Your task to perform on an android device: toggle airplane mode Image 0: 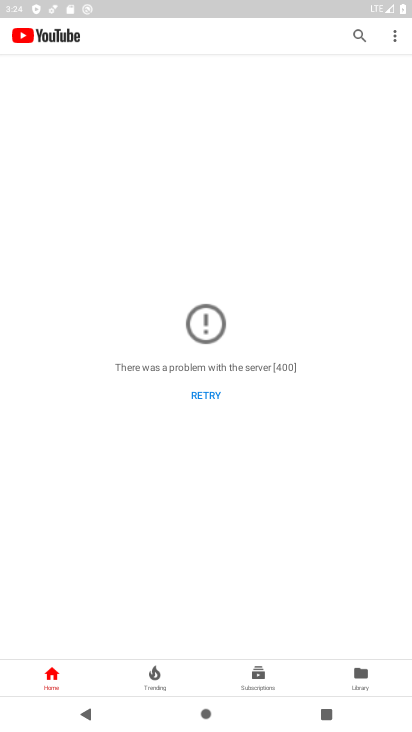
Step 0: press back button
Your task to perform on an android device: toggle airplane mode Image 1: 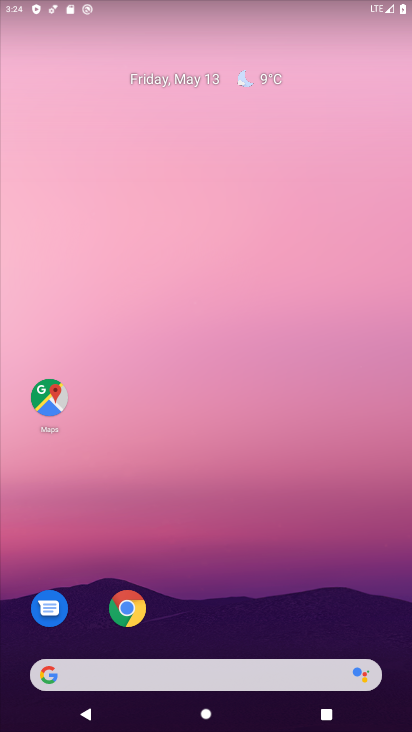
Step 1: drag from (110, 657) to (336, 151)
Your task to perform on an android device: toggle airplane mode Image 2: 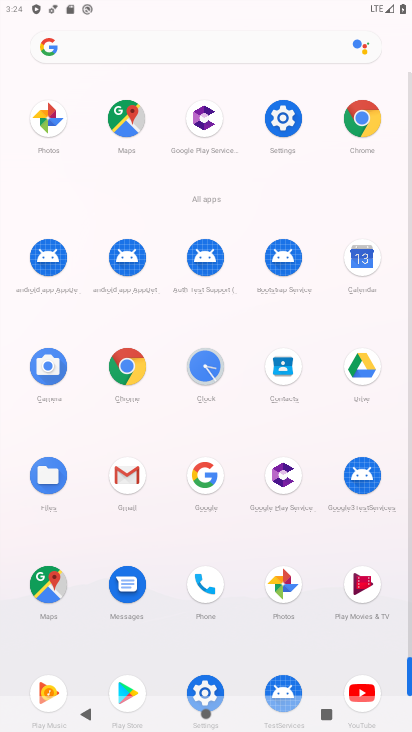
Step 2: drag from (193, 581) to (243, 399)
Your task to perform on an android device: toggle airplane mode Image 3: 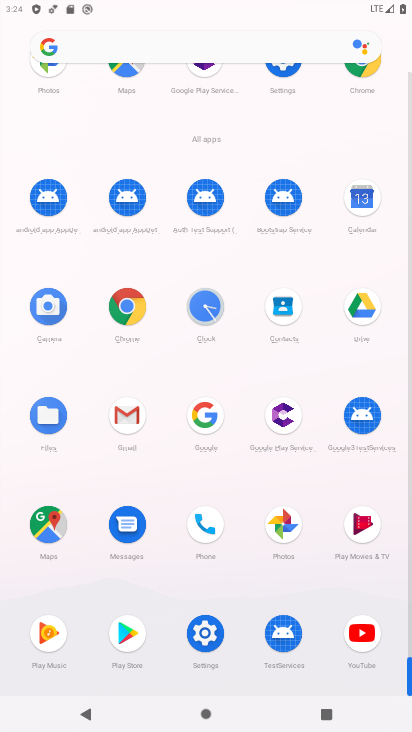
Step 3: click (215, 637)
Your task to perform on an android device: toggle airplane mode Image 4: 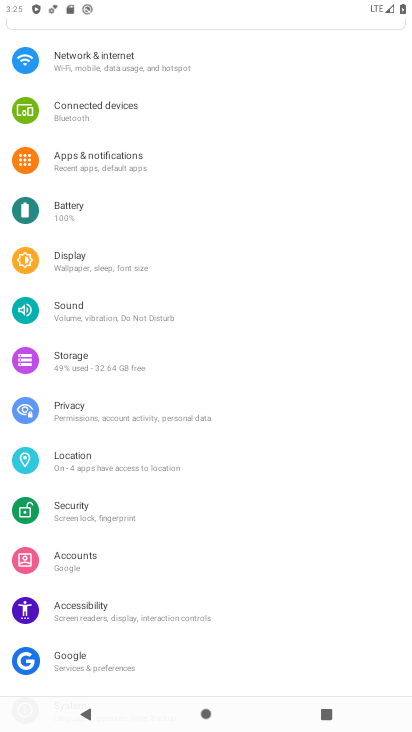
Step 4: click (265, 64)
Your task to perform on an android device: toggle airplane mode Image 5: 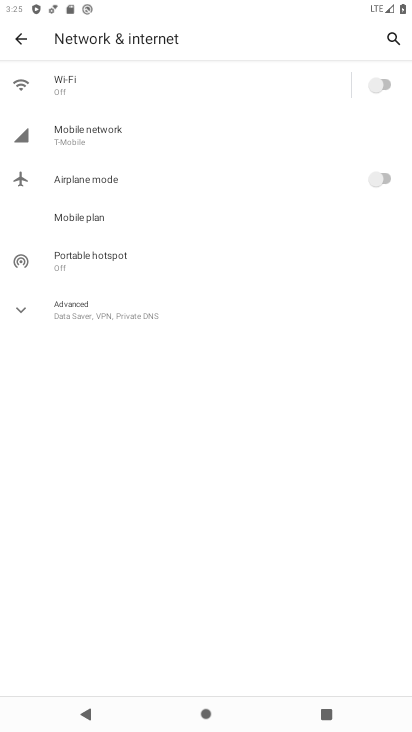
Step 5: click (398, 175)
Your task to perform on an android device: toggle airplane mode Image 6: 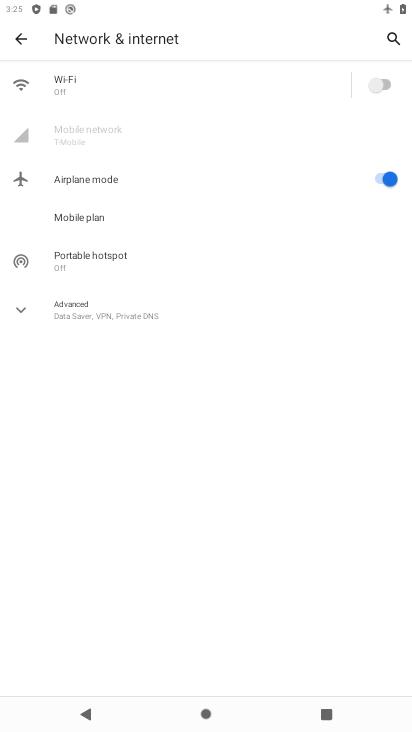
Step 6: task complete